Your task to perform on an android device: turn on data saver in the chrome app Image 0: 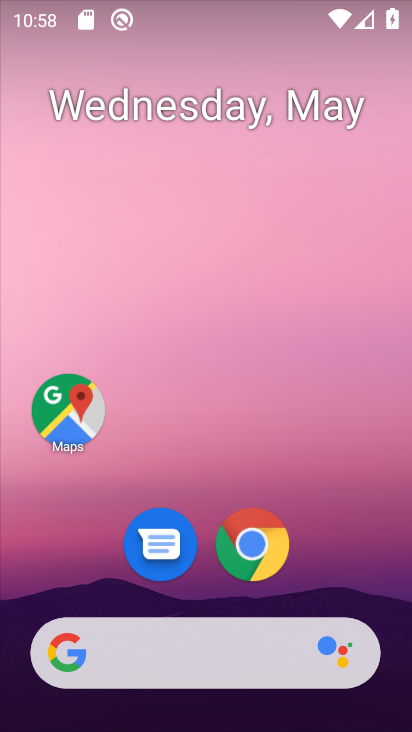
Step 0: click (277, 549)
Your task to perform on an android device: turn on data saver in the chrome app Image 1: 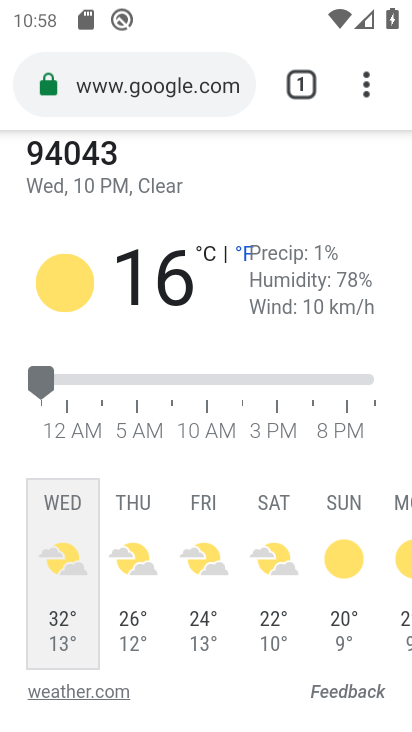
Step 1: click (369, 94)
Your task to perform on an android device: turn on data saver in the chrome app Image 2: 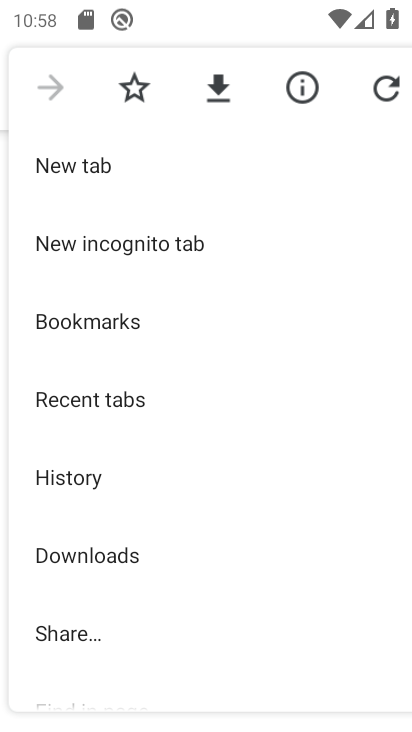
Step 2: drag from (122, 608) to (167, 142)
Your task to perform on an android device: turn on data saver in the chrome app Image 3: 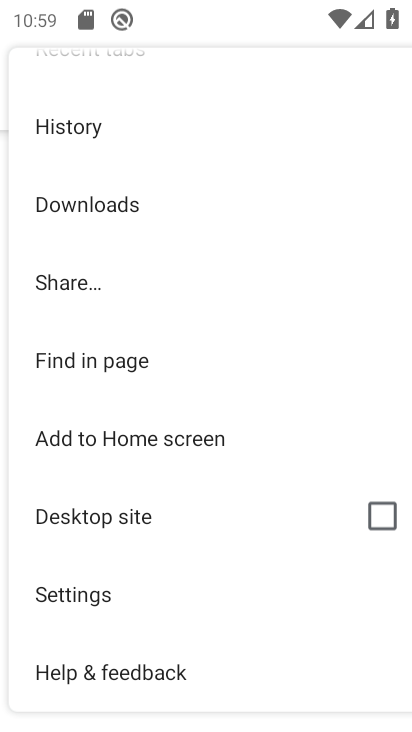
Step 3: click (85, 592)
Your task to perform on an android device: turn on data saver in the chrome app Image 4: 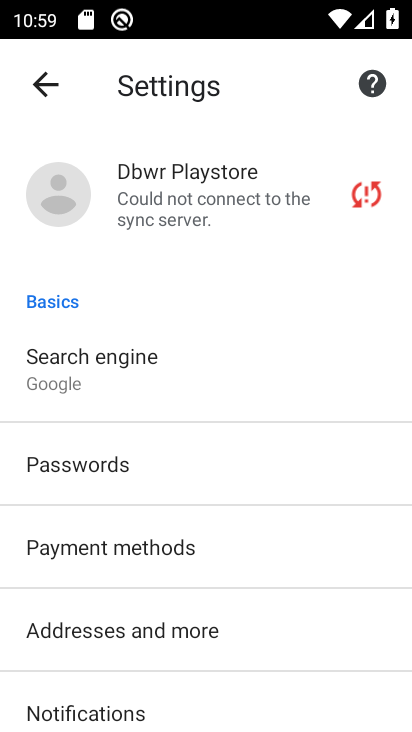
Step 4: drag from (205, 699) to (177, 134)
Your task to perform on an android device: turn on data saver in the chrome app Image 5: 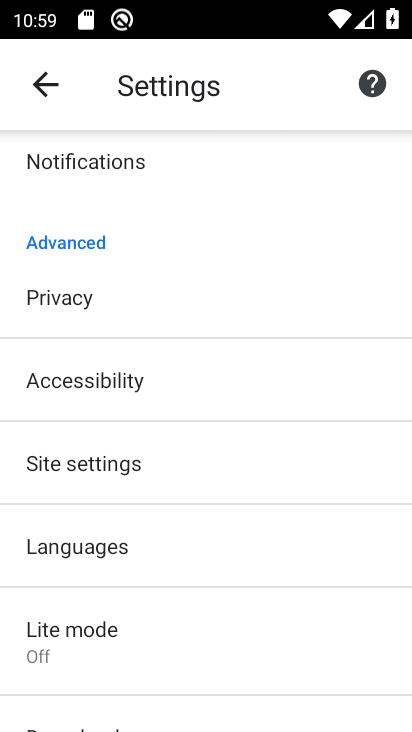
Step 5: click (94, 648)
Your task to perform on an android device: turn on data saver in the chrome app Image 6: 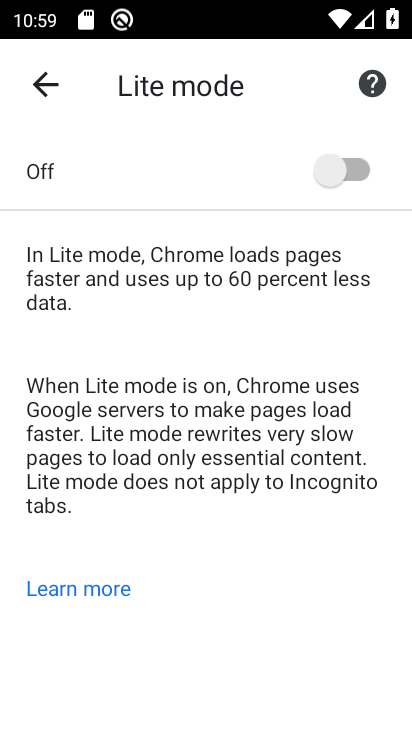
Step 6: click (335, 177)
Your task to perform on an android device: turn on data saver in the chrome app Image 7: 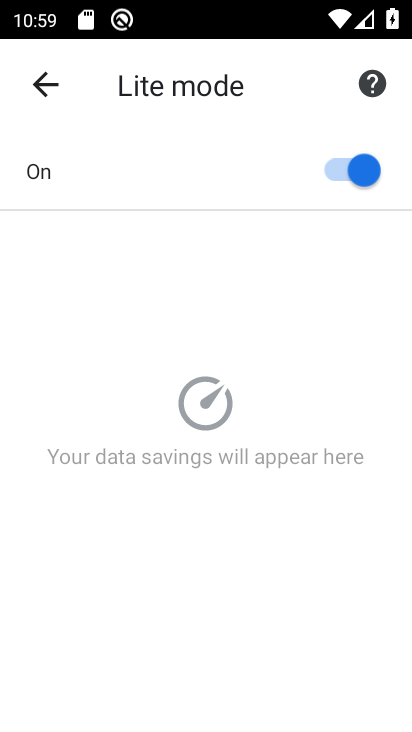
Step 7: task complete